Your task to perform on an android device: Search for vegetarian restaurants on Maps Image 0: 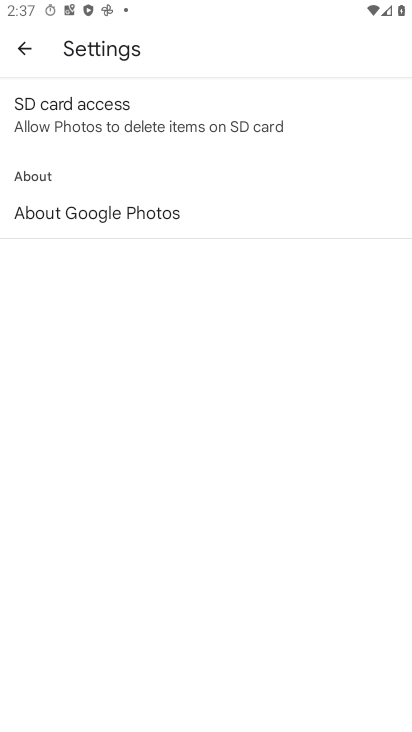
Step 0: press home button
Your task to perform on an android device: Search for vegetarian restaurants on Maps Image 1: 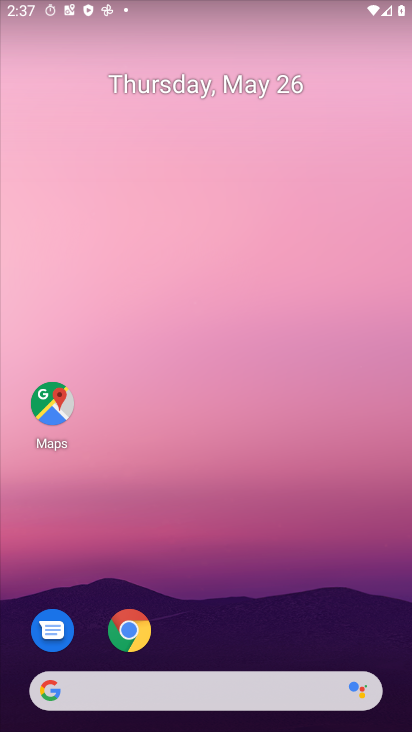
Step 1: click (56, 401)
Your task to perform on an android device: Search for vegetarian restaurants on Maps Image 2: 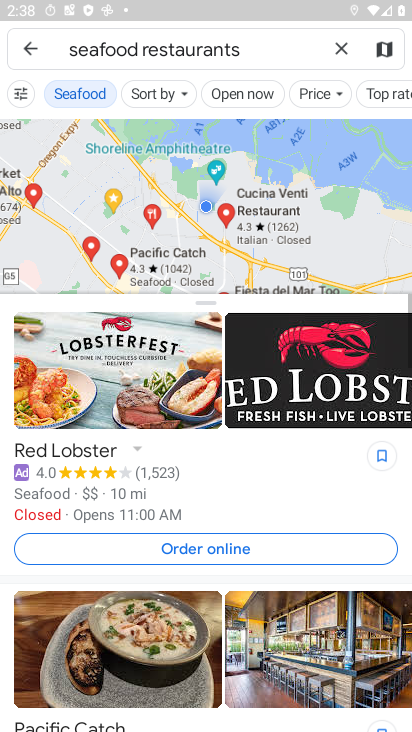
Step 2: click (350, 39)
Your task to perform on an android device: Search for vegetarian restaurants on Maps Image 3: 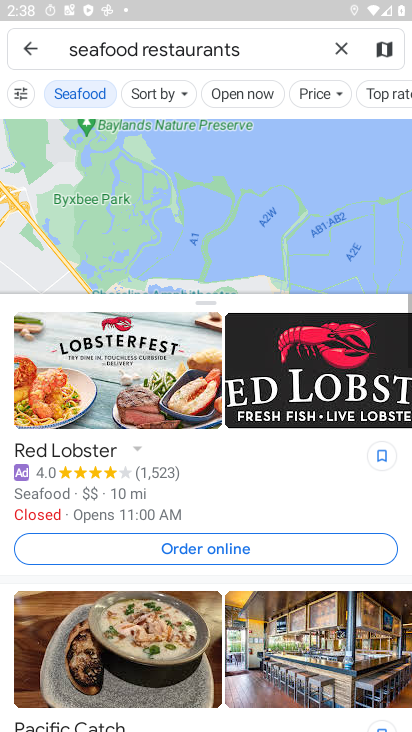
Step 3: click (350, 39)
Your task to perform on an android device: Search for vegetarian restaurants on Maps Image 4: 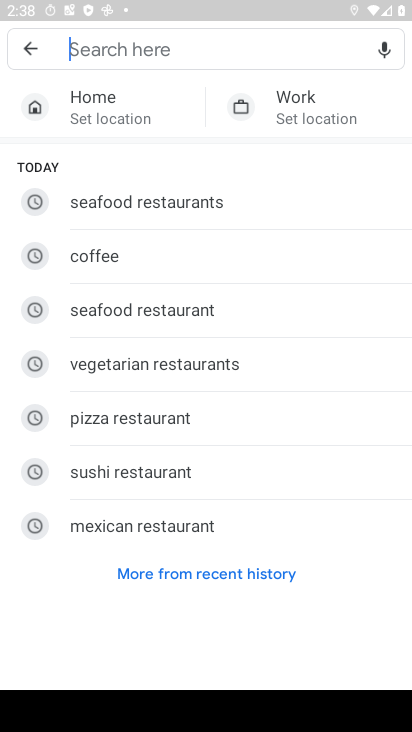
Step 4: click (124, 354)
Your task to perform on an android device: Search for vegetarian restaurants on Maps Image 5: 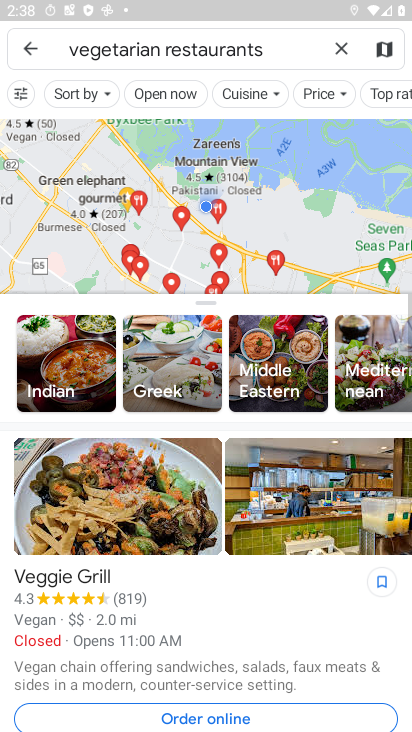
Step 5: task complete